Your task to perform on an android device: toggle show notifications on the lock screen Image 0: 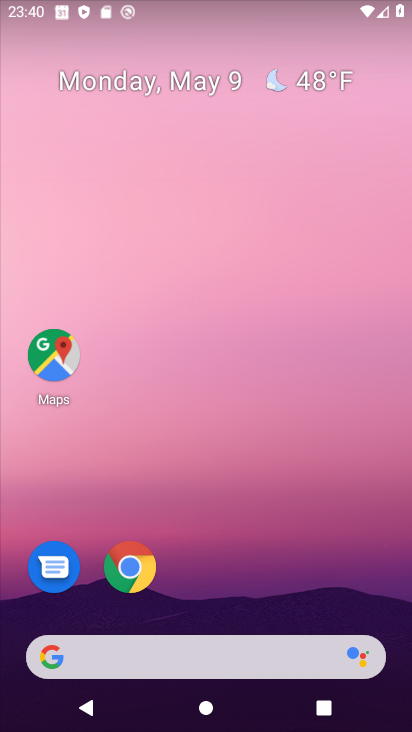
Step 0: drag from (264, 591) to (254, 126)
Your task to perform on an android device: toggle show notifications on the lock screen Image 1: 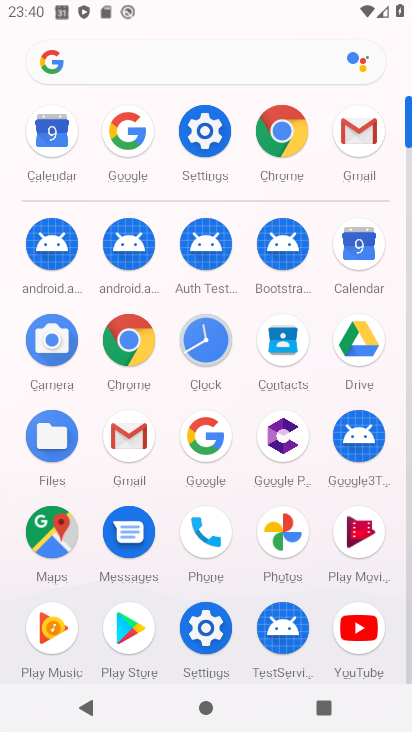
Step 1: click (205, 132)
Your task to perform on an android device: toggle show notifications on the lock screen Image 2: 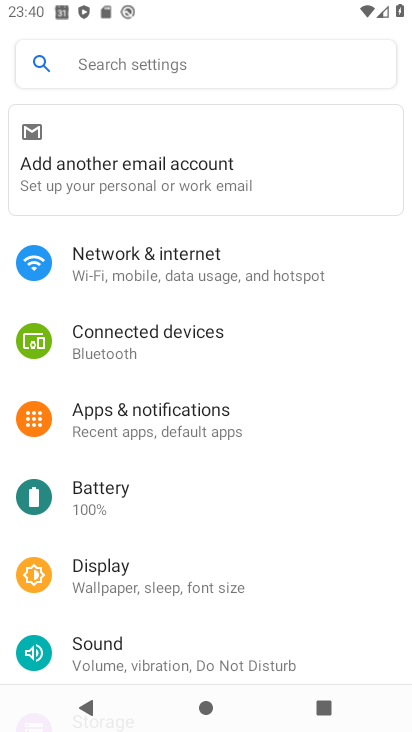
Step 2: click (140, 405)
Your task to perform on an android device: toggle show notifications on the lock screen Image 3: 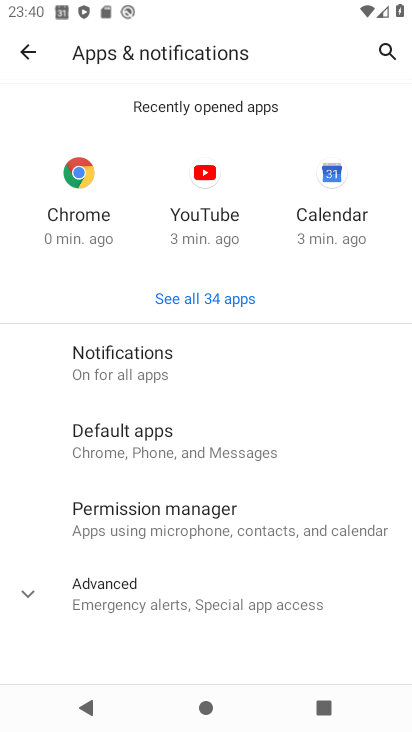
Step 3: click (142, 352)
Your task to perform on an android device: toggle show notifications on the lock screen Image 4: 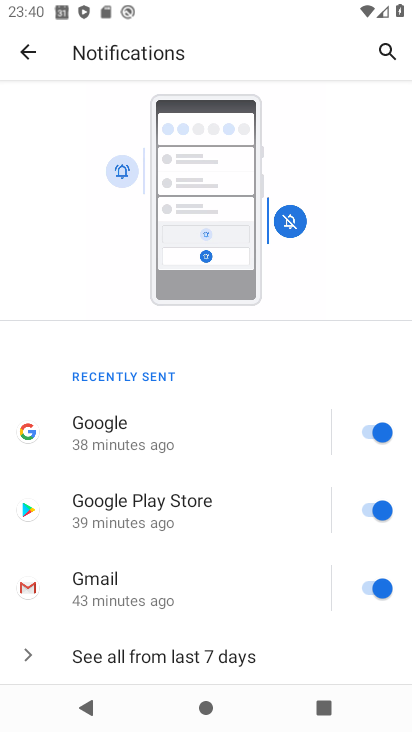
Step 4: drag from (171, 557) to (191, 444)
Your task to perform on an android device: toggle show notifications on the lock screen Image 5: 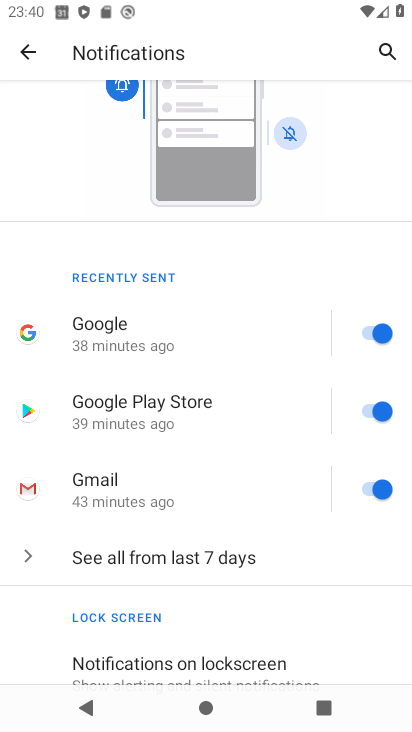
Step 5: drag from (162, 569) to (180, 412)
Your task to perform on an android device: toggle show notifications on the lock screen Image 6: 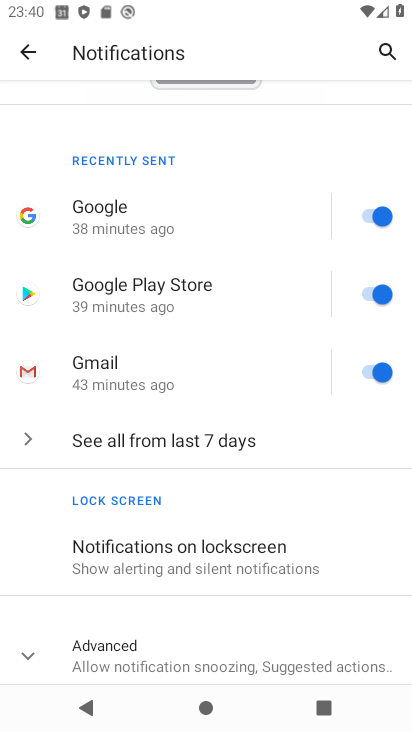
Step 6: click (189, 542)
Your task to perform on an android device: toggle show notifications on the lock screen Image 7: 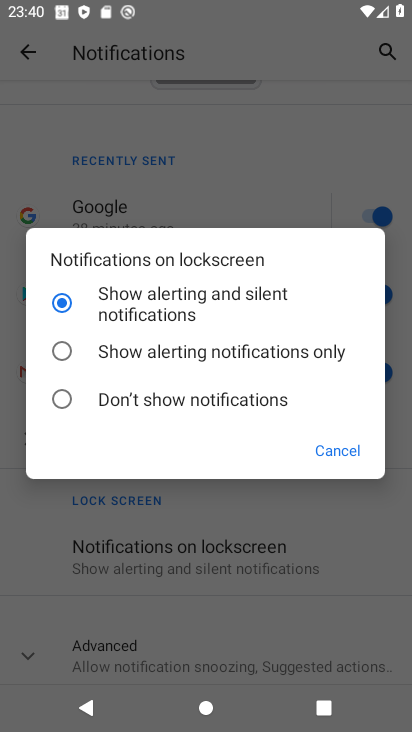
Step 7: click (61, 393)
Your task to perform on an android device: toggle show notifications on the lock screen Image 8: 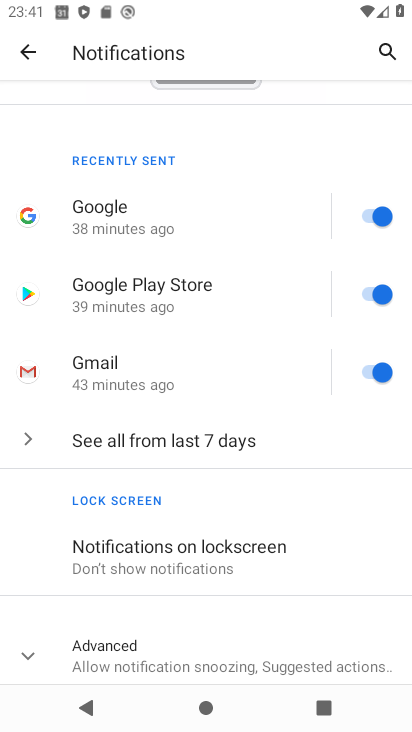
Step 8: task complete